Your task to perform on an android device: change the clock display to show seconds Image 0: 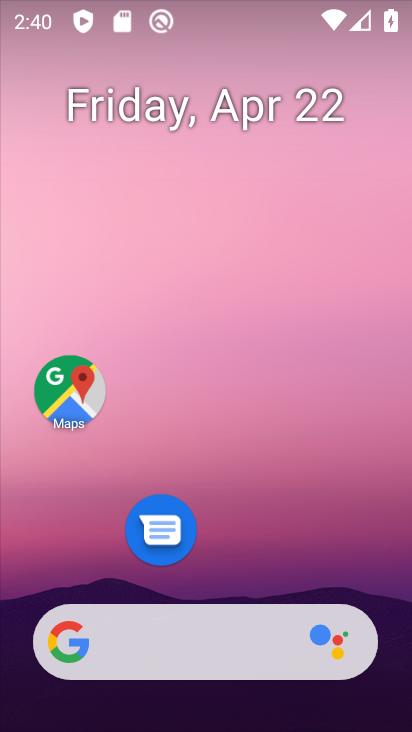
Step 0: drag from (260, 567) to (240, 2)
Your task to perform on an android device: change the clock display to show seconds Image 1: 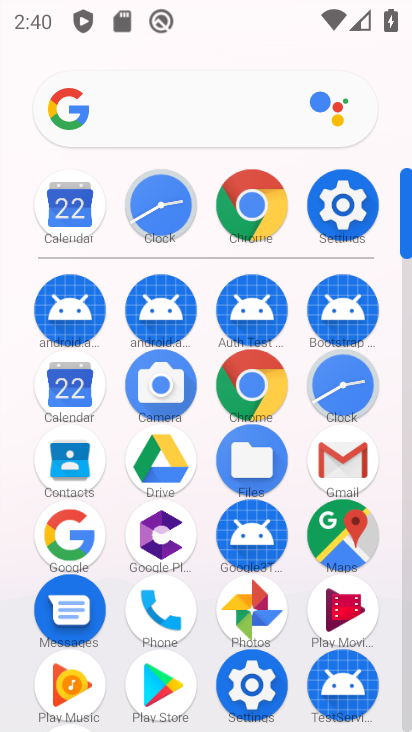
Step 1: click (337, 380)
Your task to perform on an android device: change the clock display to show seconds Image 2: 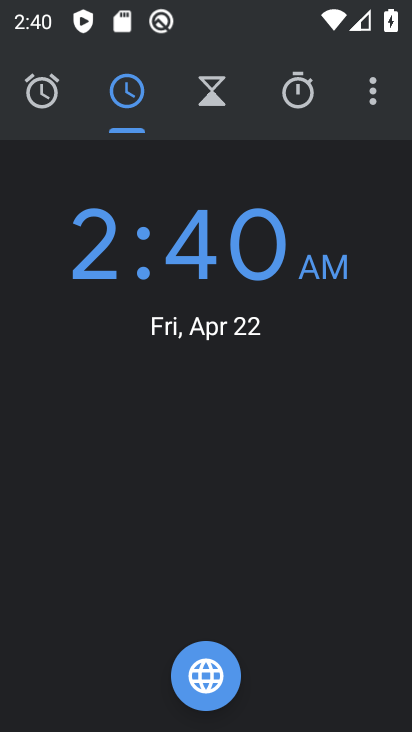
Step 2: click (377, 89)
Your task to perform on an android device: change the clock display to show seconds Image 3: 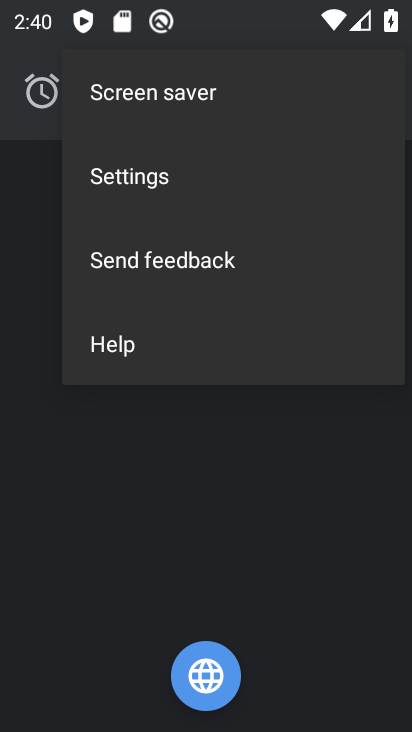
Step 3: click (147, 173)
Your task to perform on an android device: change the clock display to show seconds Image 4: 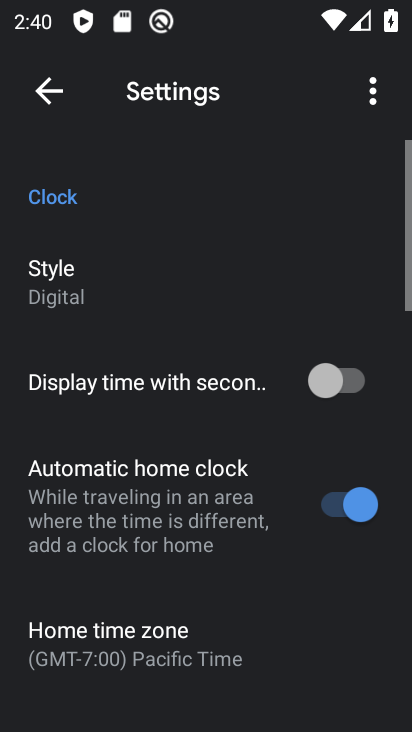
Step 4: click (320, 383)
Your task to perform on an android device: change the clock display to show seconds Image 5: 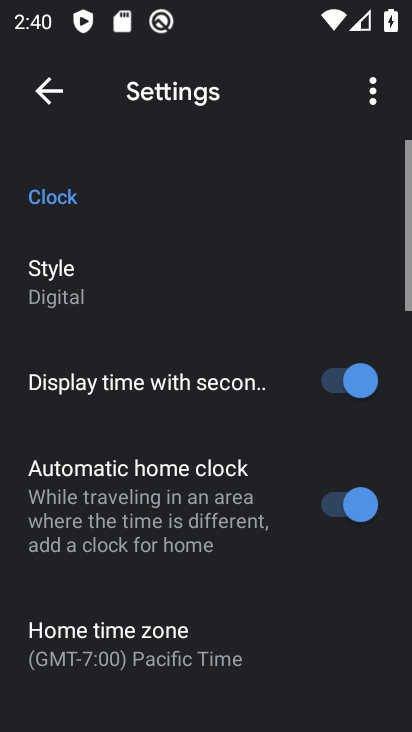
Step 5: task complete